Your task to perform on an android device: Is it going to rain tomorrow? Image 0: 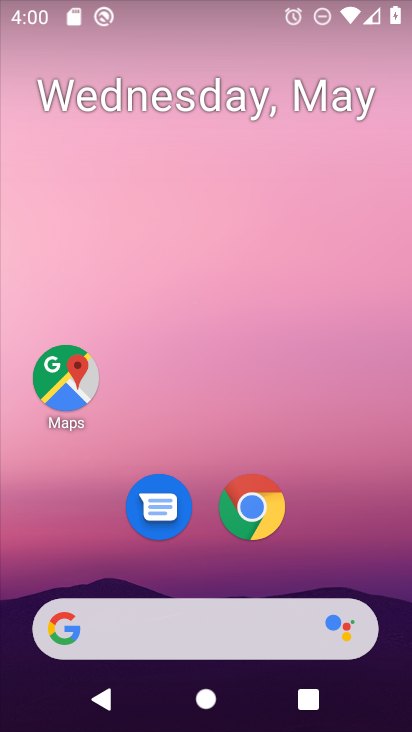
Step 0: click (97, 640)
Your task to perform on an android device: Is it going to rain tomorrow? Image 1: 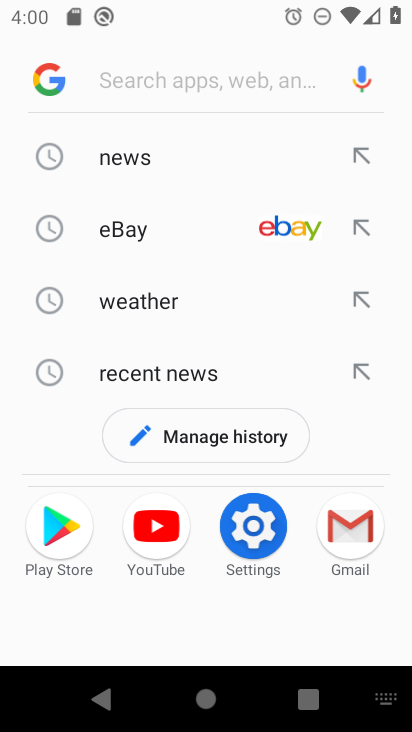
Step 1: click (165, 299)
Your task to perform on an android device: Is it going to rain tomorrow? Image 2: 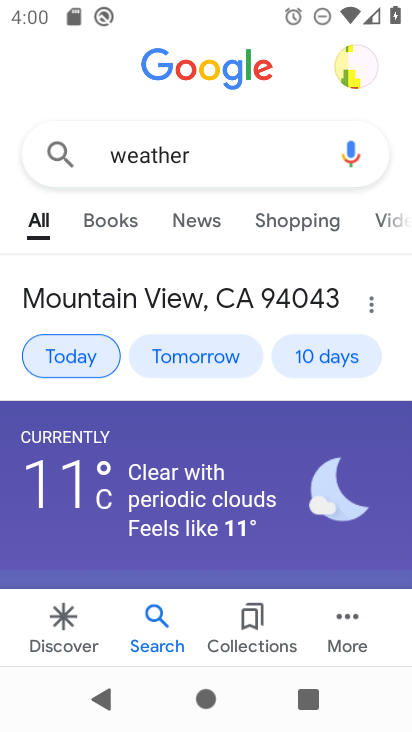
Step 2: click (220, 355)
Your task to perform on an android device: Is it going to rain tomorrow? Image 3: 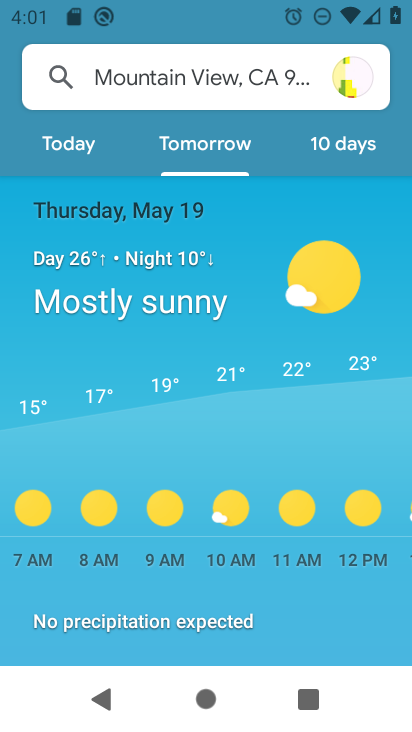
Step 3: task complete